Your task to perform on an android device: Go to battery settings Image 0: 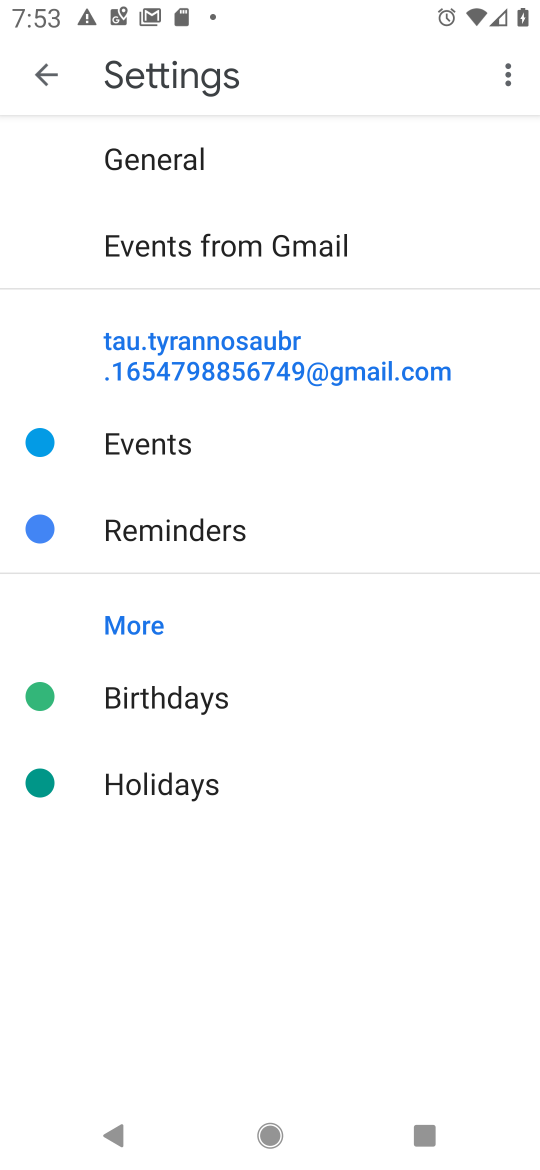
Step 0: press home button
Your task to perform on an android device: Go to battery settings Image 1: 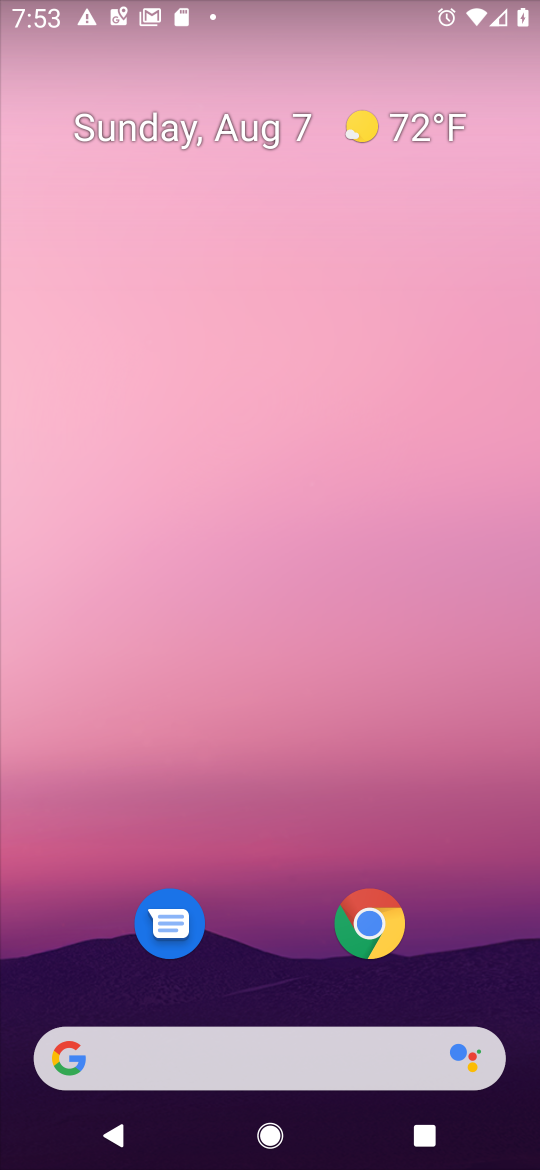
Step 1: drag from (465, 800) to (340, 270)
Your task to perform on an android device: Go to battery settings Image 2: 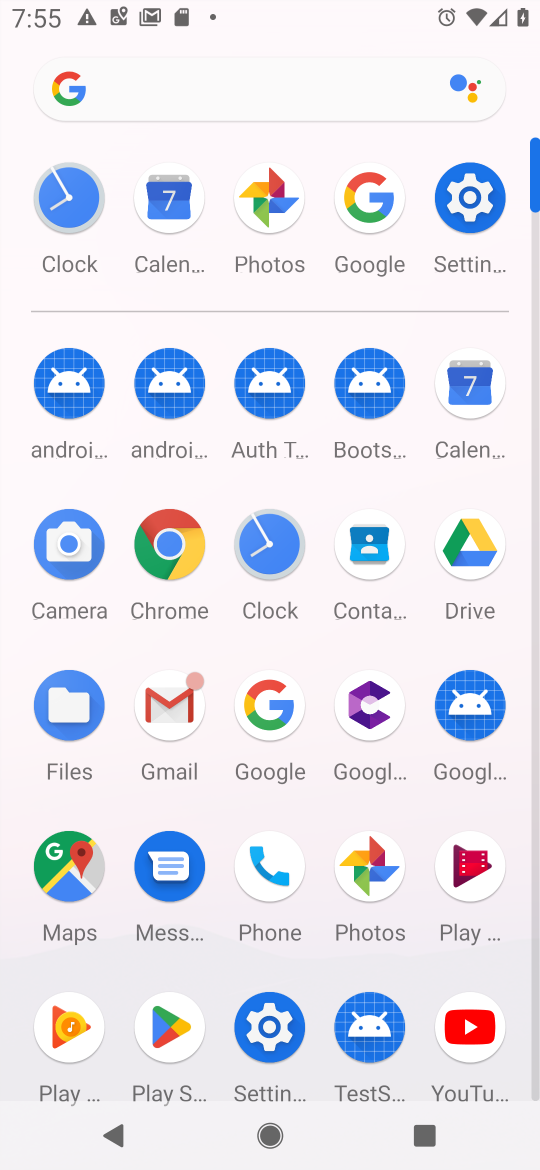
Step 2: click (253, 1019)
Your task to perform on an android device: Go to battery settings Image 3: 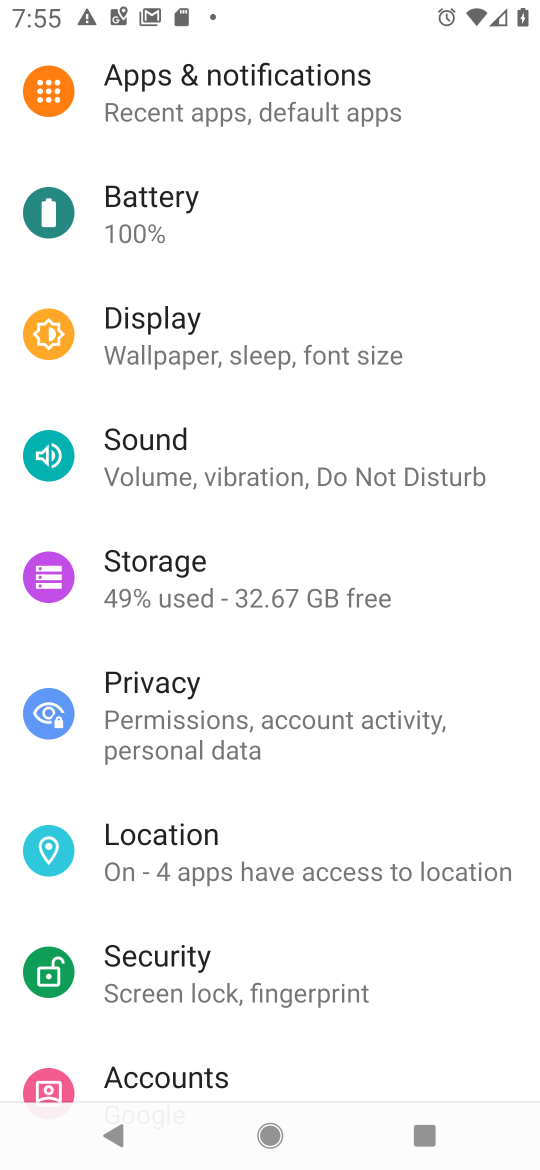
Step 3: click (154, 206)
Your task to perform on an android device: Go to battery settings Image 4: 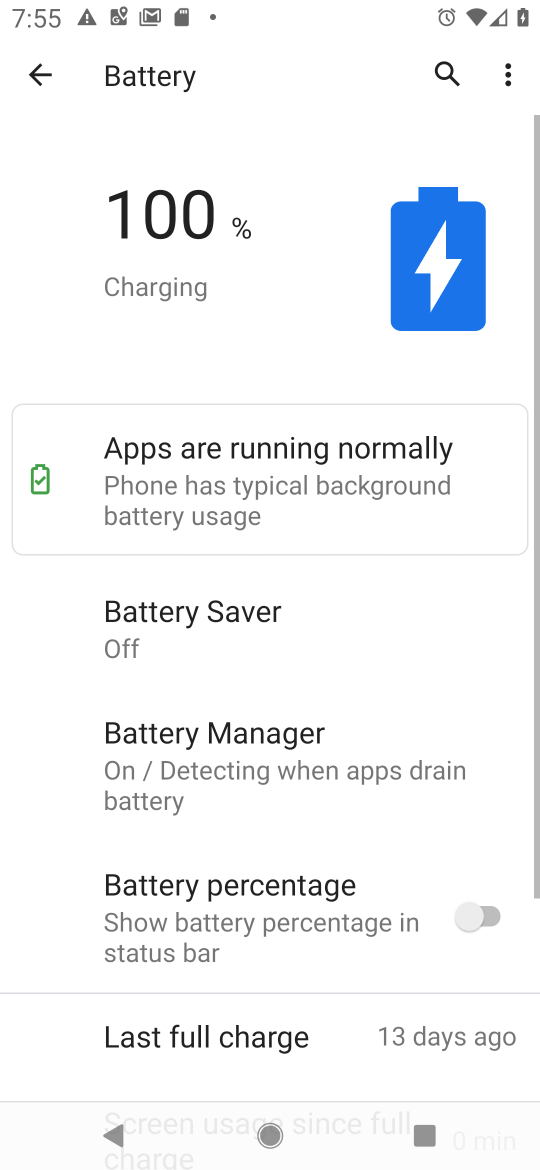
Step 4: task complete